Your task to perform on an android device: turn pop-ups off in chrome Image 0: 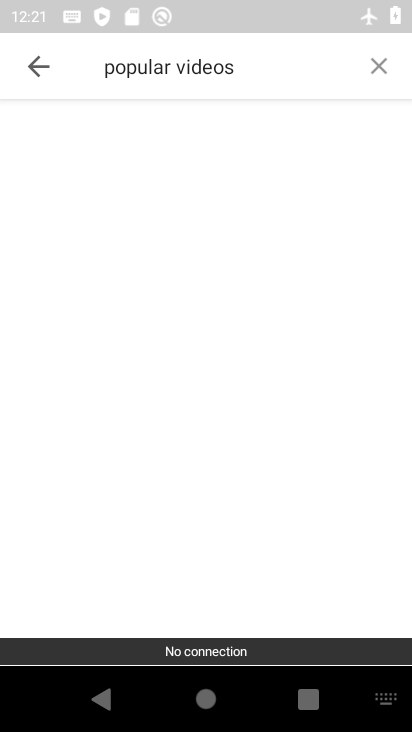
Step 0: press home button
Your task to perform on an android device: turn pop-ups off in chrome Image 1: 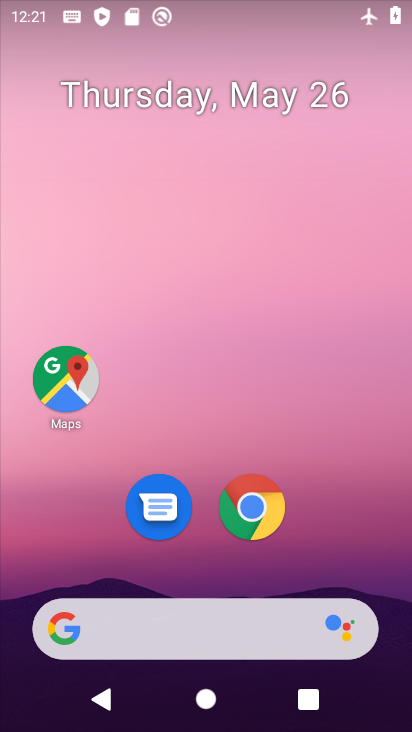
Step 1: click (240, 530)
Your task to perform on an android device: turn pop-ups off in chrome Image 2: 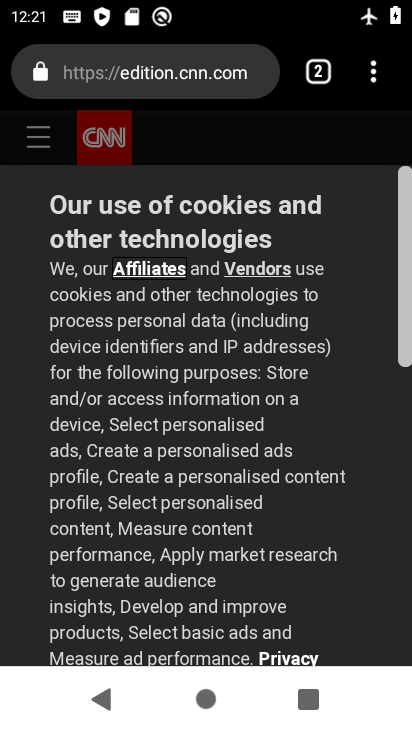
Step 2: drag from (376, 64) to (145, 501)
Your task to perform on an android device: turn pop-ups off in chrome Image 3: 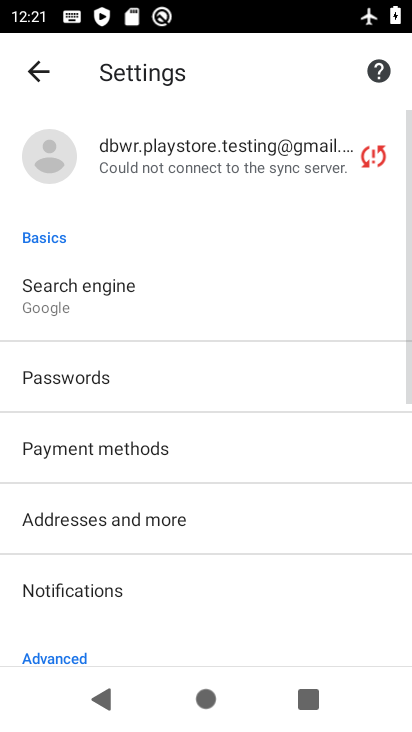
Step 3: drag from (216, 615) to (252, 187)
Your task to perform on an android device: turn pop-ups off in chrome Image 4: 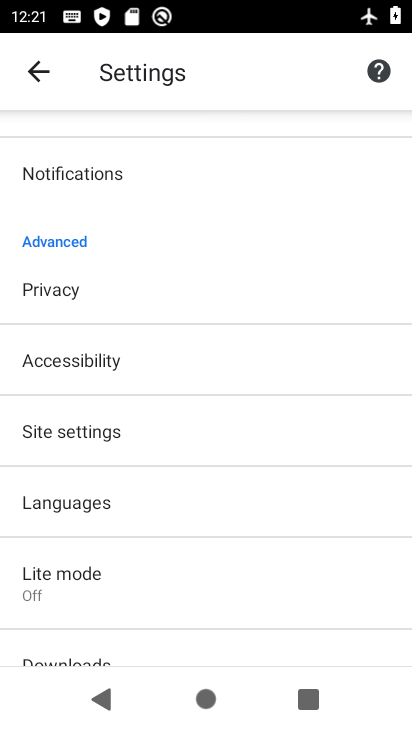
Step 4: click (166, 426)
Your task to perform on an android device: turn pop-ups off in chrome Image 5: 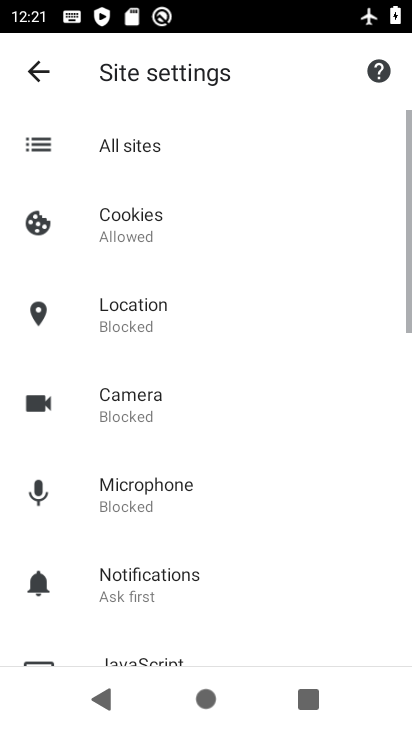
Step 5: drag from (220, 596) to (230, 225)
Your task to perform on an android device: turn pop-ups off in chrome Image 6: 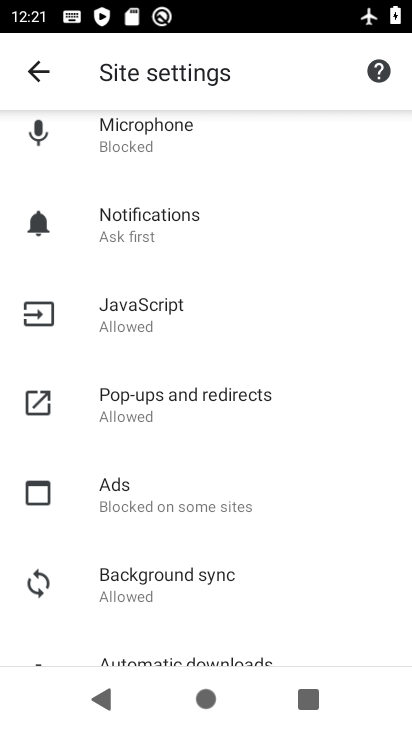
Step 6: click (212, 552)
Your task to perform on an android device: turn pop-ups off in chrome Image 7: 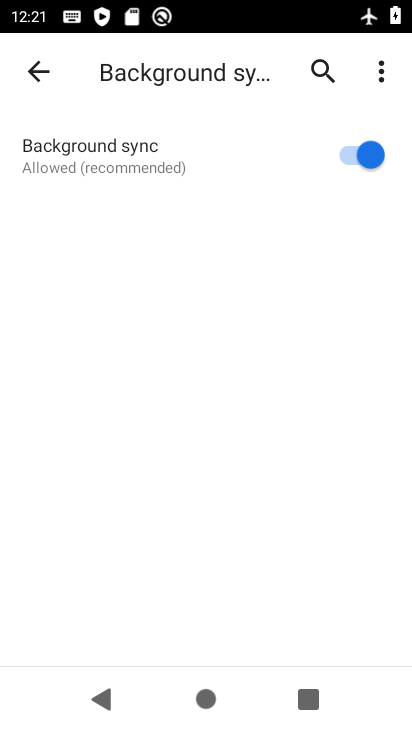
Step 7: click (35, 64)
Your task to perform on an android device: turn pop-ups off in chrome Image 8: 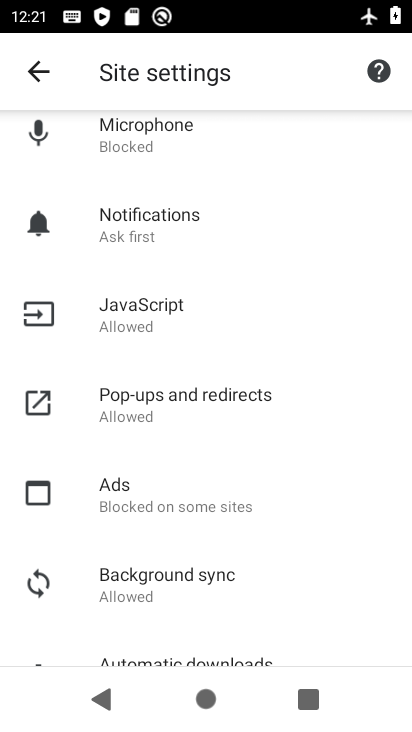
Step 8: click (221, 422)
Your task to perform on an android device: turn pop-ups off in chrome Image 9: 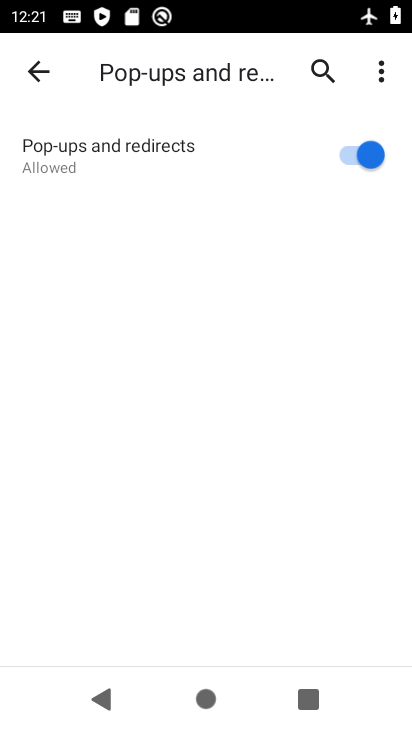
Step 9: click (342, 159)
Your task to perform on an android device: turn pop-ups off in chrome Image 10: 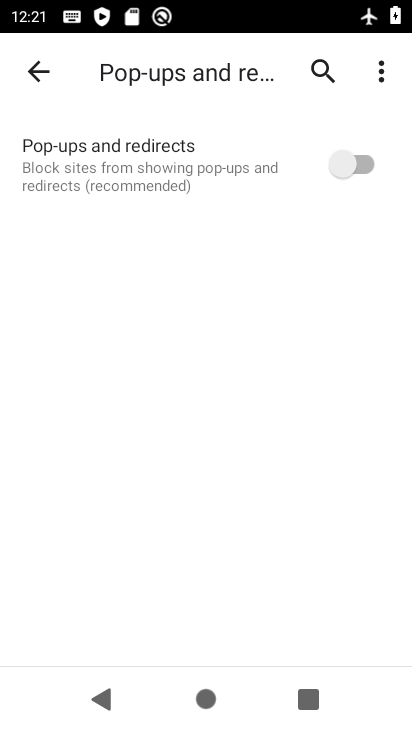
Step 10: task complete